Your task to perform on an android device: turn off smart reply in the gmail app Image 0: 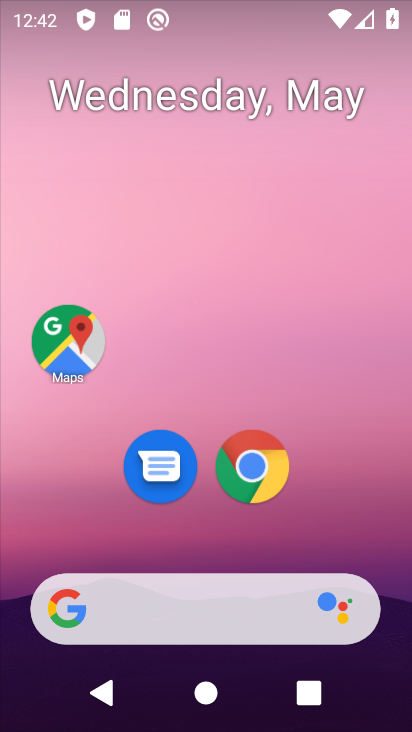
Step 0: drag from (216, 550) to (253, 84)
Your task to perform on an android device: turn off smart reply in the gmail app Image 1: 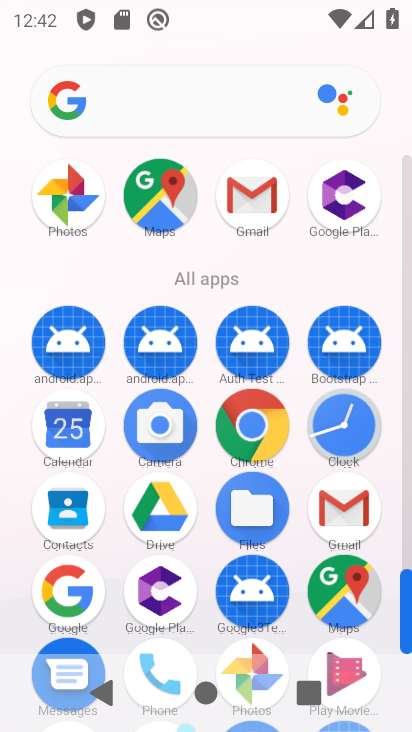
Step 1: click (256, 194)
Your task to perform on an android device: turn off smart reply in the gmail app Image 2: 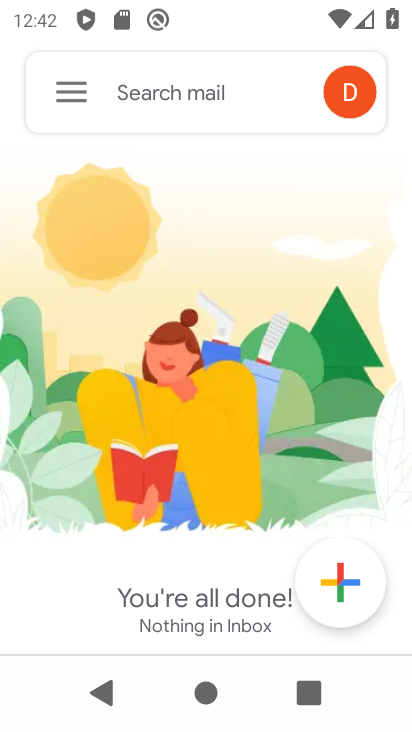
Step 2: click (71, 91)
Your task to perform on an android device: turn off smart reply in the gmail app Image 3: 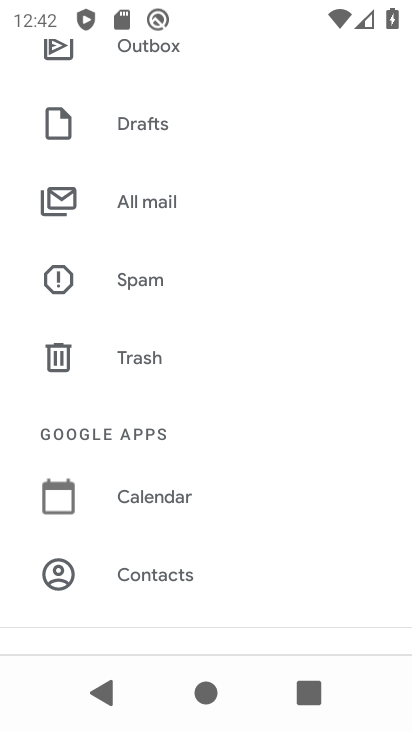
Step 3: drag from (209, 538) to (278, 76)
Your task to perform on an android device: turn off smart reply in the gmail app Image 4: 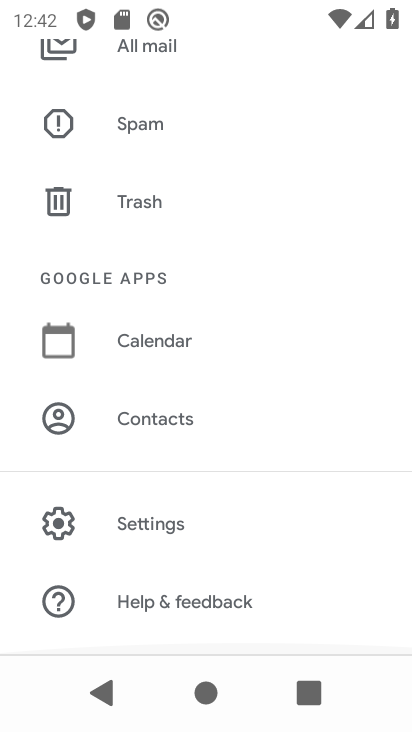
Step 4: click (152, 522)
Your task to perform on an android device: turn off smart reply in the gmail app Image 5: 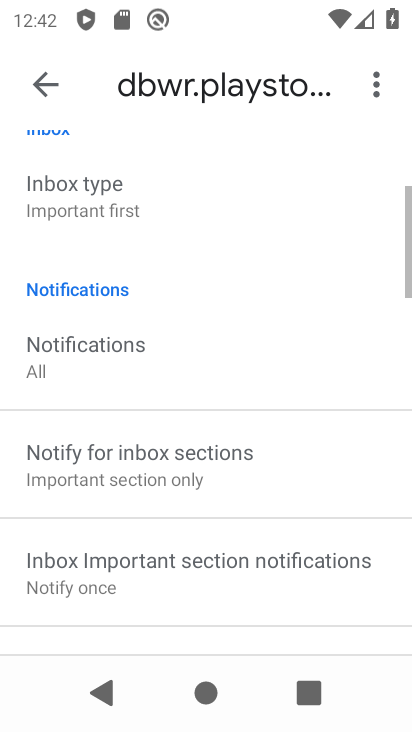
Step 5: drag from (161, 553) to (185, 156)
Your task to perform on an android device: turn off smart reply in the gmail app Image 6: 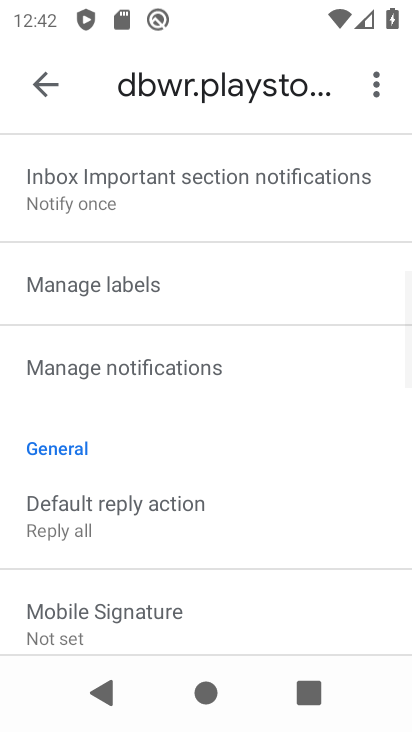
Step 6: drag from (181, 588) to (195, 177)
Your task to perform on an android device: turn off smart reply in the gmail app Image 7: 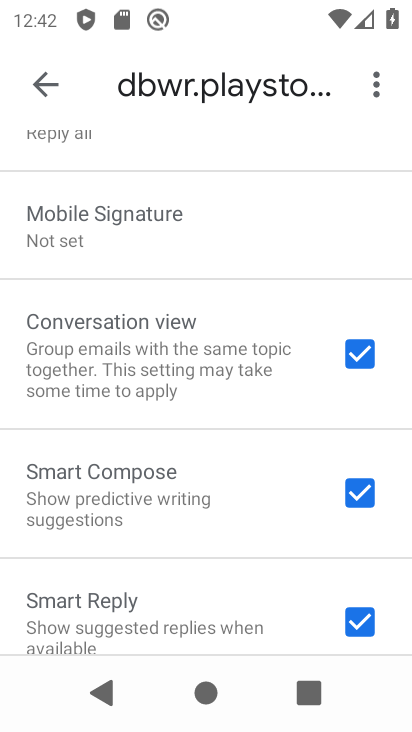
Step 7: drag from (243, 528) to (272, 288)
Your task to perform on an android device: turn off smart reply in the gmail app Image 8: 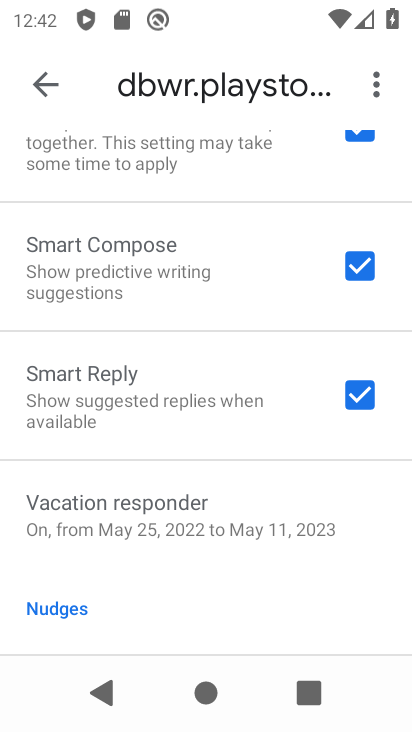
Step 8: click (365, 390)
Your task to perform on an android device: turn off smart reply in the gmail app Image 9: 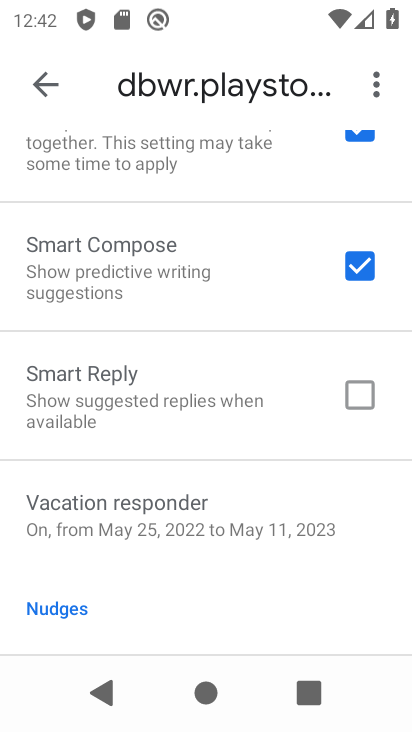
Step 9: task complete